Your task to perform on an android device: Open the calendar app, open the side menu, and click the "Day" option Image 0: 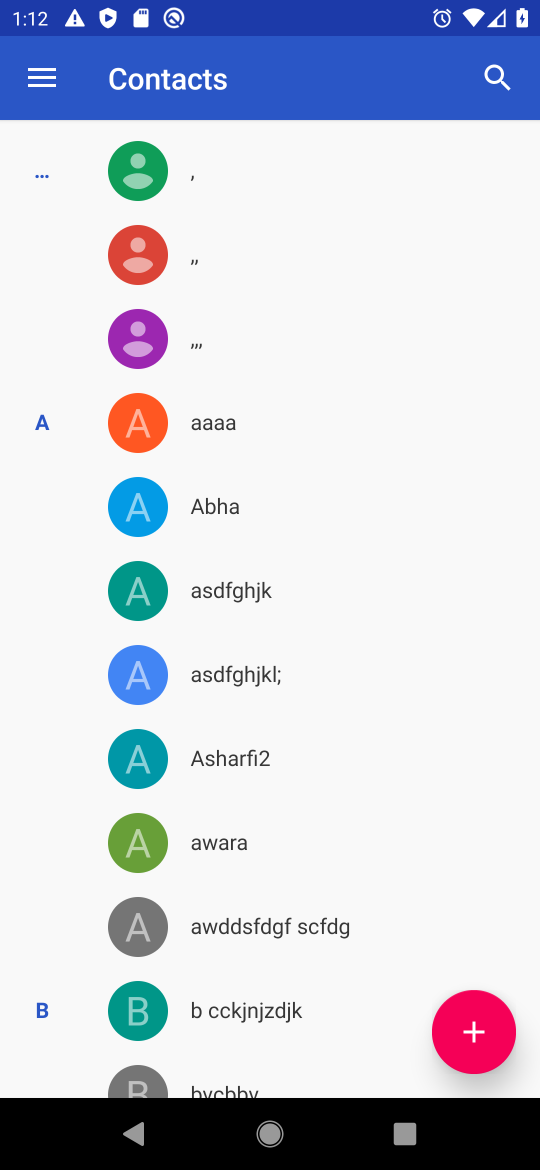
Step 0: press home button
Your task to perform on an android device: Open the calendar app, open the side menu, and click the "Day" option Image 1: 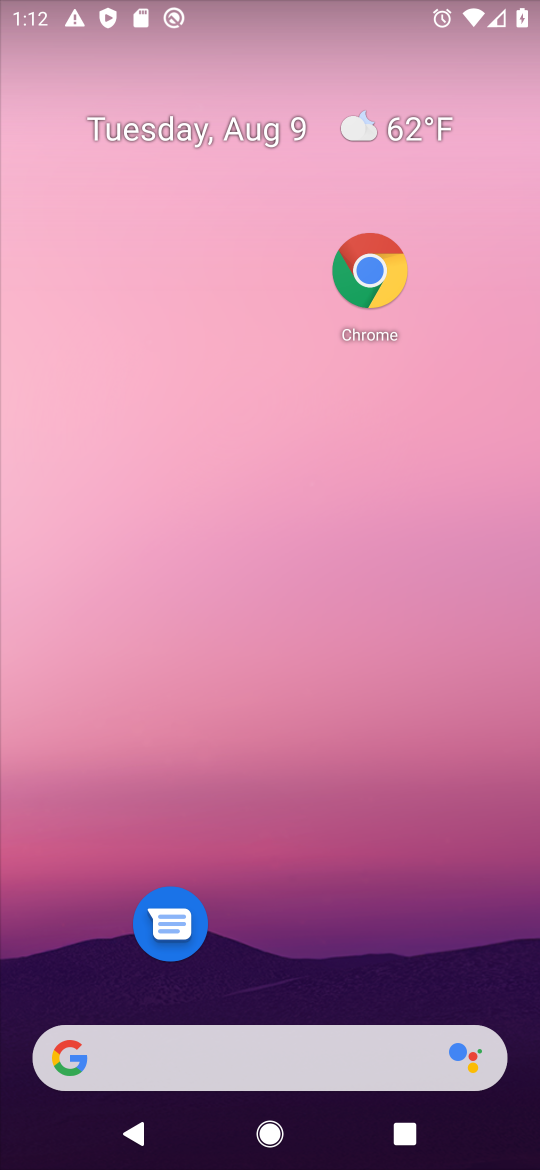
Step 1: drag from (331, 982) to (300, 159)
Your task to perform on an android device: Open the calendar app, open the side menu, and click the "Day" option Image 2: 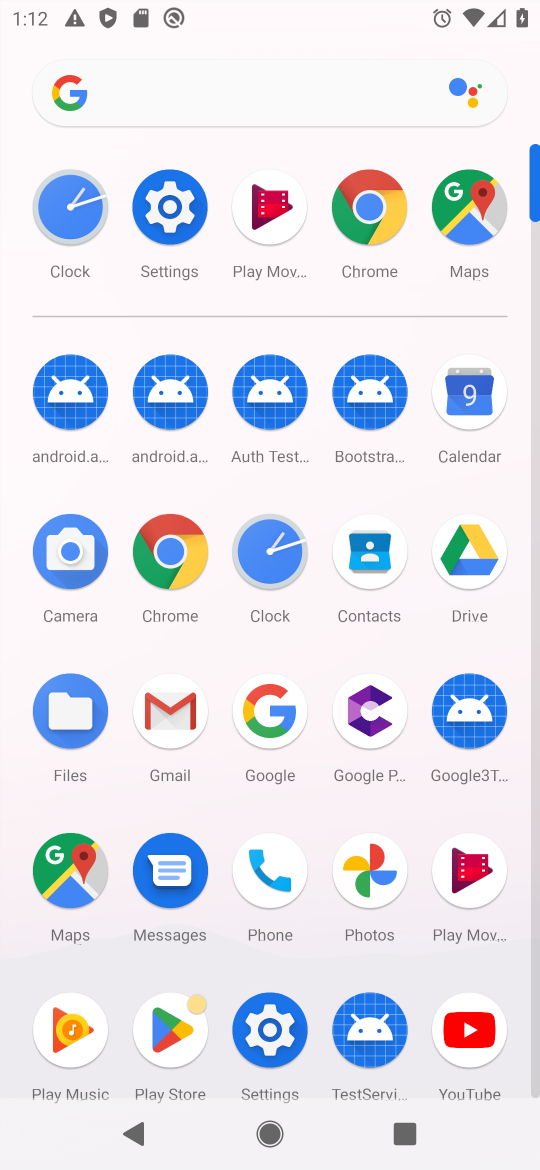
Step 2: click (472, 393)
Your task to perform on an android device: Open the calendar app, open the side menu, and click the "Day" option Image 3: 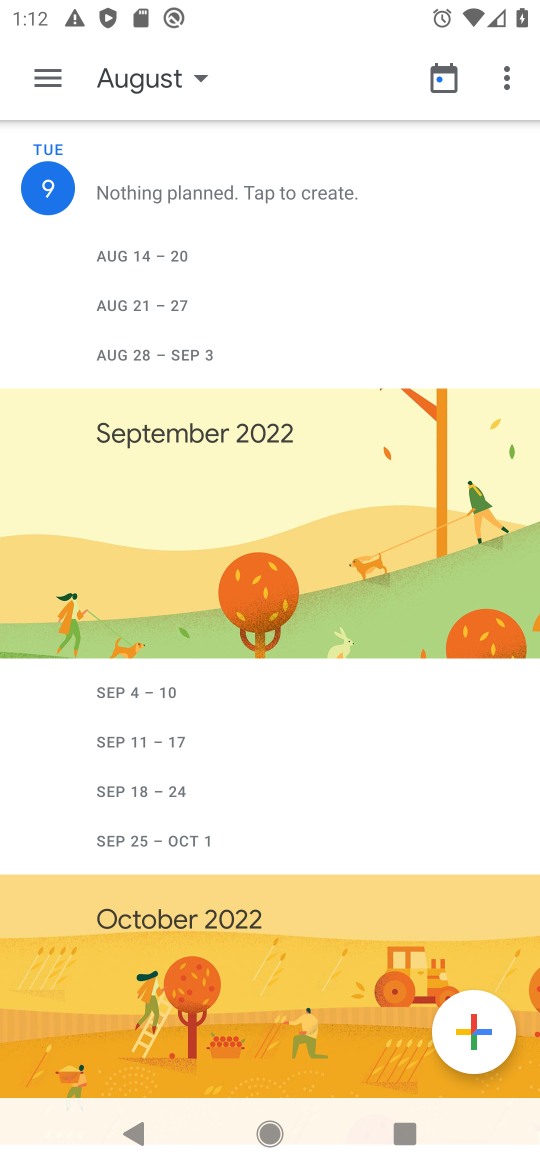
Step 3: click (38, 71)
Your task to perform on an android device: Open the calendar app, open the side menu, and click the "Day" option Image 4: 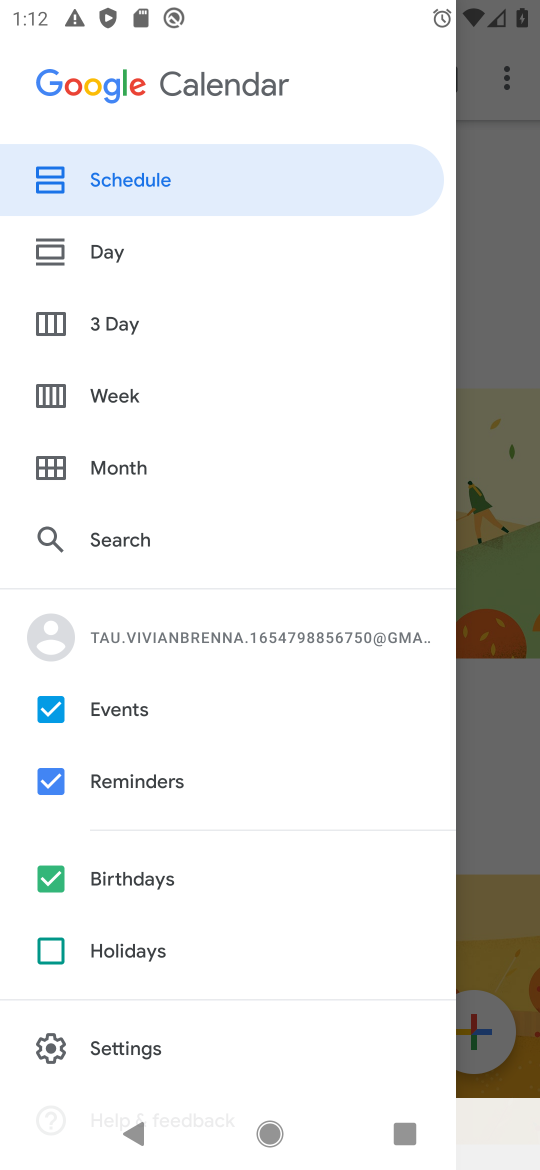
Step 4: click (104, 311)
Your task to perform on an android device: Open the calendar app, open the side menu, and click the "Day" option Image 5: 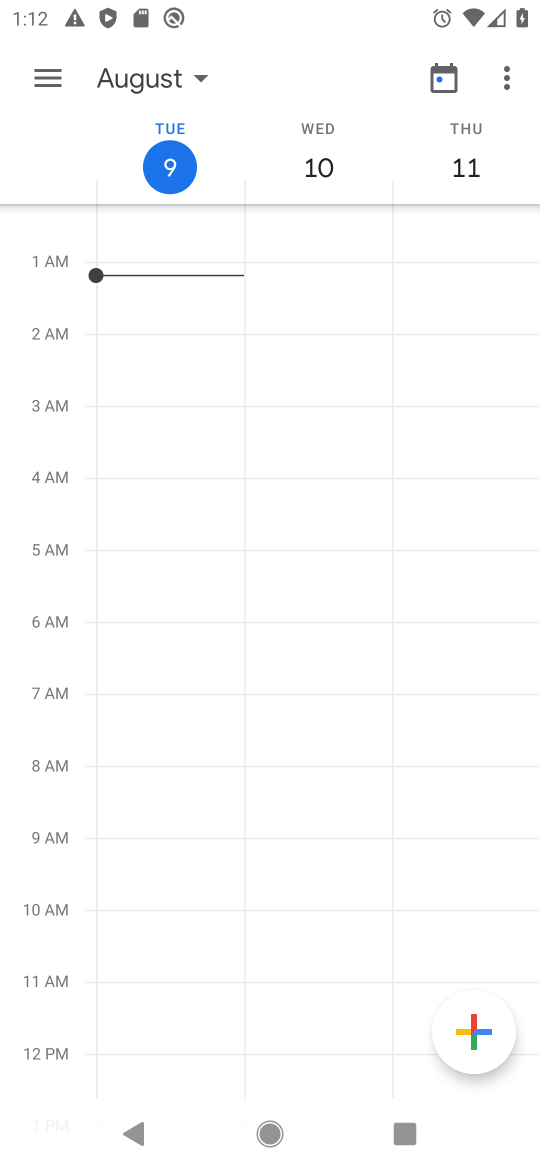
Step 5: task complete